Your task to perform on an android device: open app "Google Maps" (install if not already installed) Image 0: 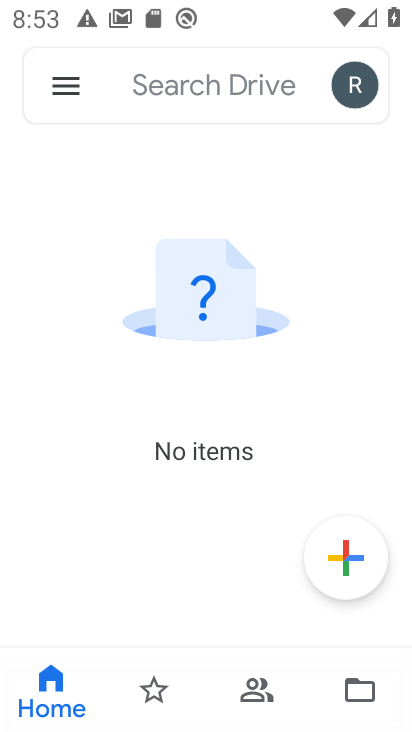
Step 0: press home button
Your task to perform on an android device: open app "Google Maps" (install if not already installed) Image 1: 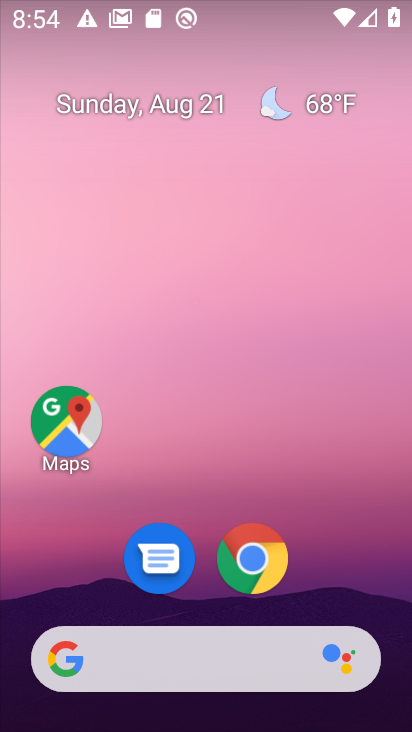
Step 1: click (78, 407)
Your task to perform on an android device: open app "Google Maps" (install if not already installed) Image 2: 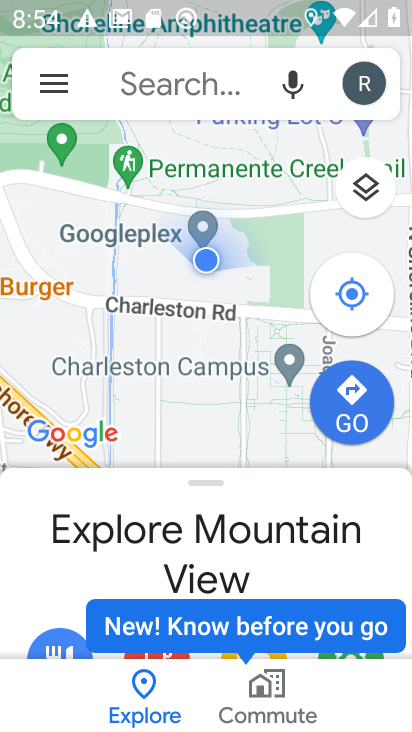
Step 2: click (193, 347)
Your task to perform on an android device: open app "Google Maps" (install if not already installed) Image 3: 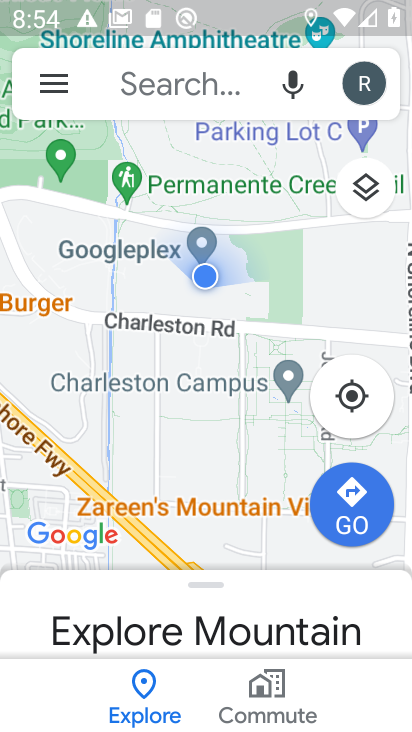
Step 3: task complete